Your task to perform on an android device: Open privacy settings Image 0: 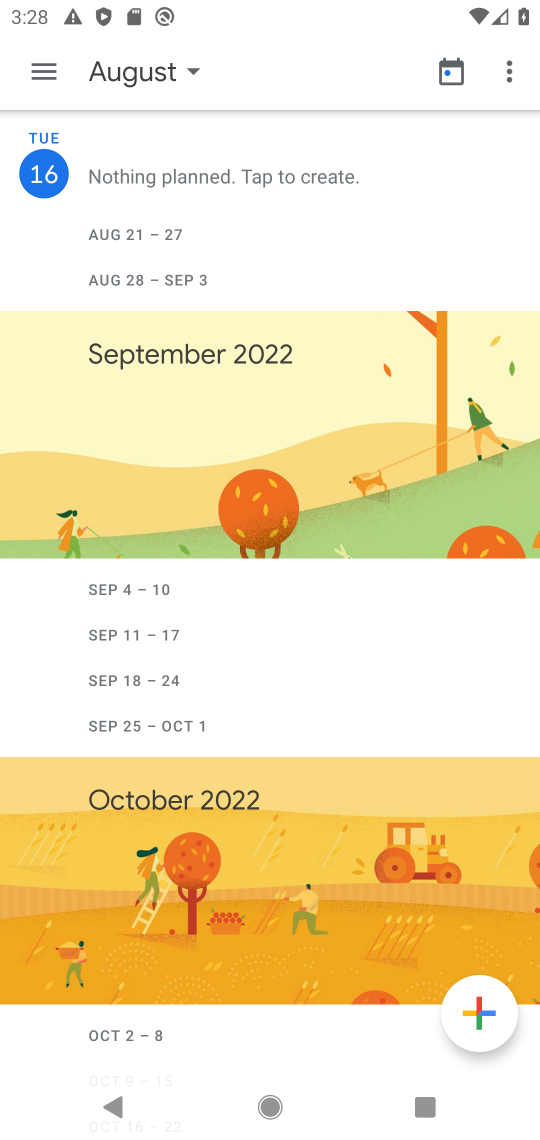
Step 0: press home button
Your task to perform on an android device: Open privacy settings Image 1: 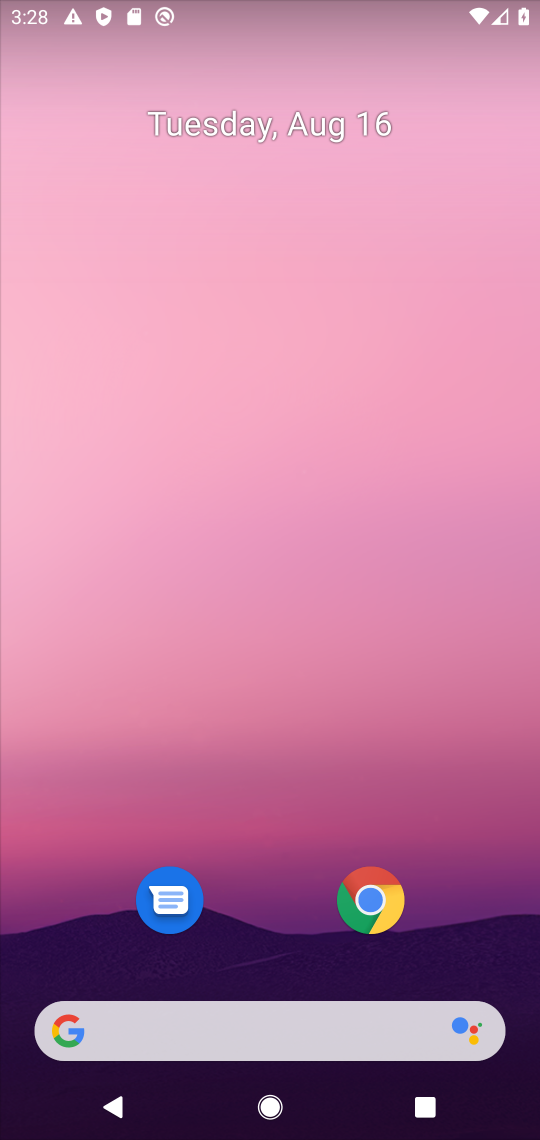
Step 1: drag from (279, 998) to (223, 173)
Your task to perform on an android device: Open privacy settings Image 2: 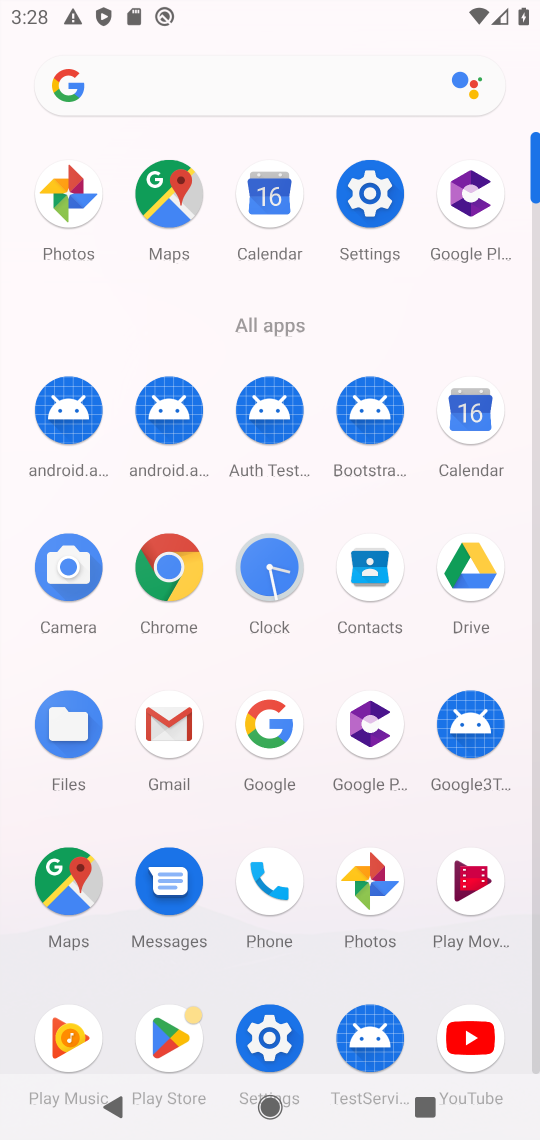
Step 2: click (373, 198)
Your task to perform on an android device: Open privacy settings Image 3: 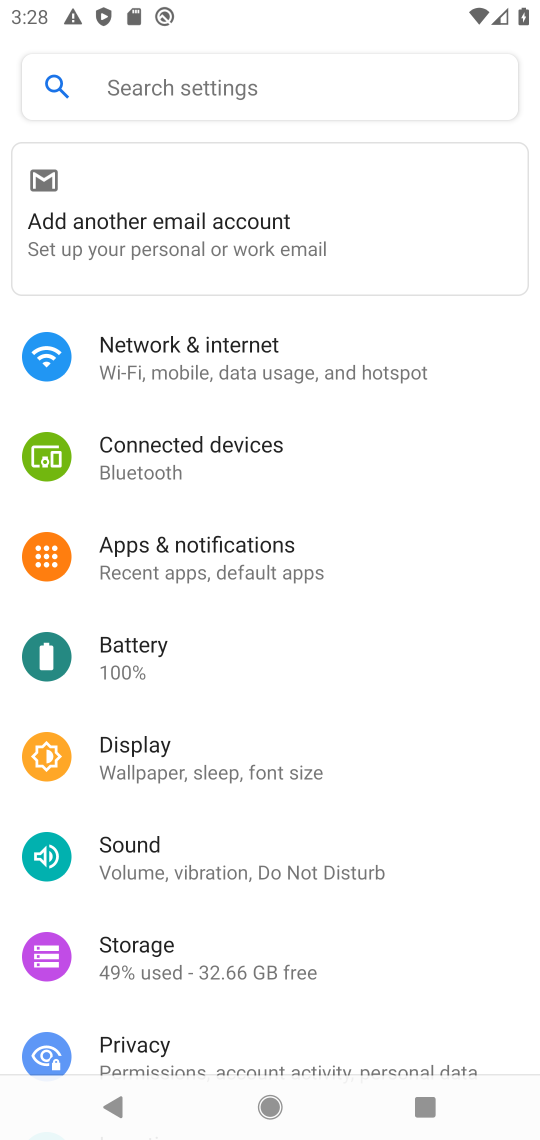
Step 3: click (158, 1051)
Your task to perform on an android device: Open privacy settings Image 4: 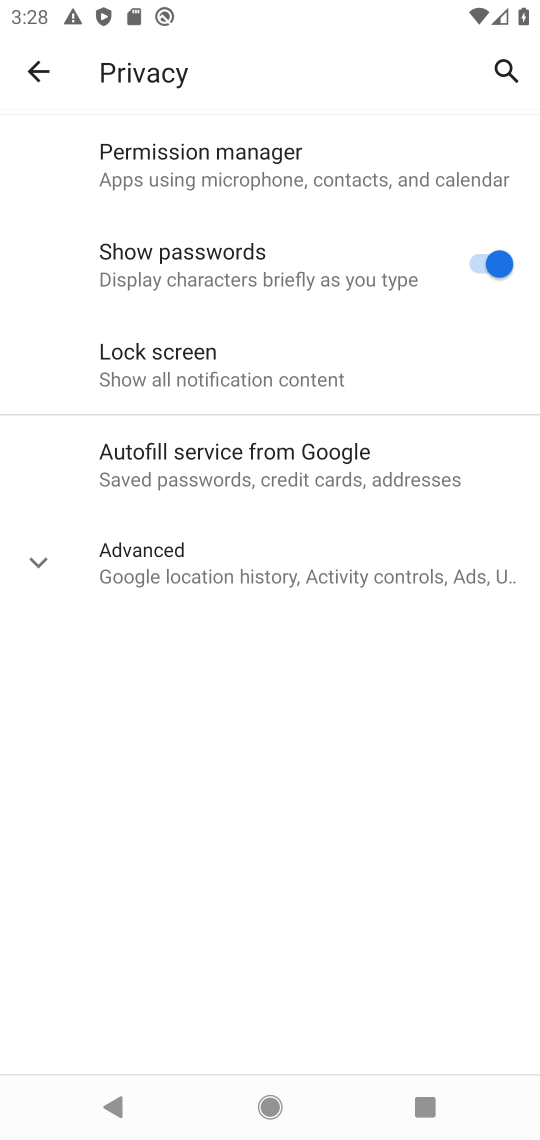
Step 4: task complete